Your task to perform on an android device: Open Google Chrome and click the shortcut for Amazon.com Image 0: 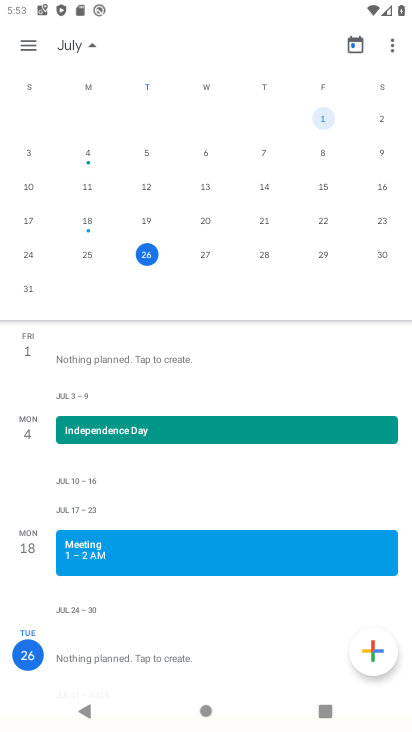
Step 0: press home button
Your task to perform on an android device: Open Google Chrome and click the shortcut for Amazon.com Image 1: 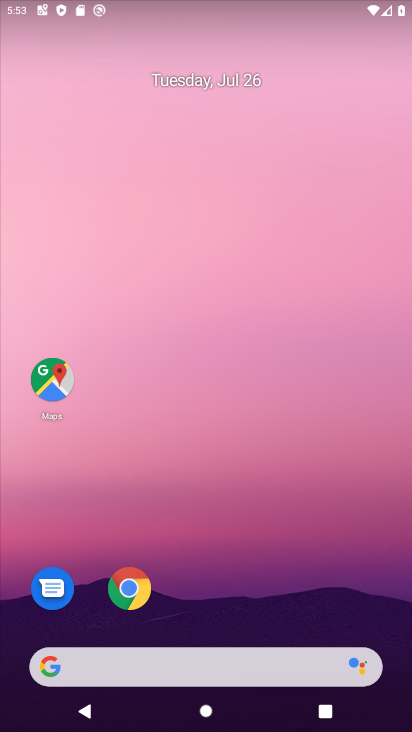
Step 1: drag from (245, 611) to (223, 50)
Your task to perform on an android device: Open Google Chrome and click the shortcut for Amazon.com Image 2: 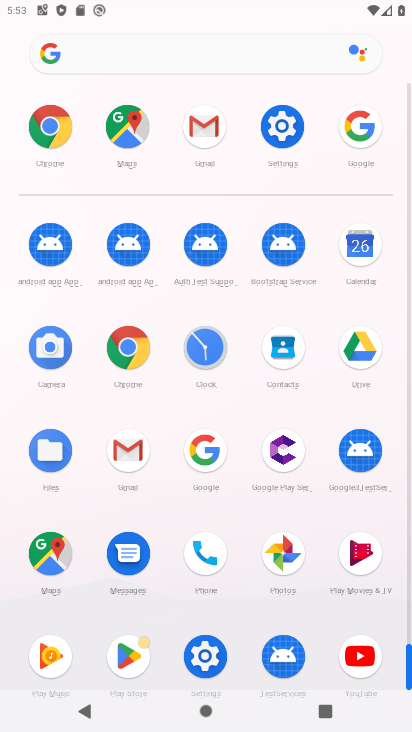
Step 2: click (133, 343)
Your task to perform on an android device: Open Google Chrome and click the shortcut for Amazon.com Image 3: 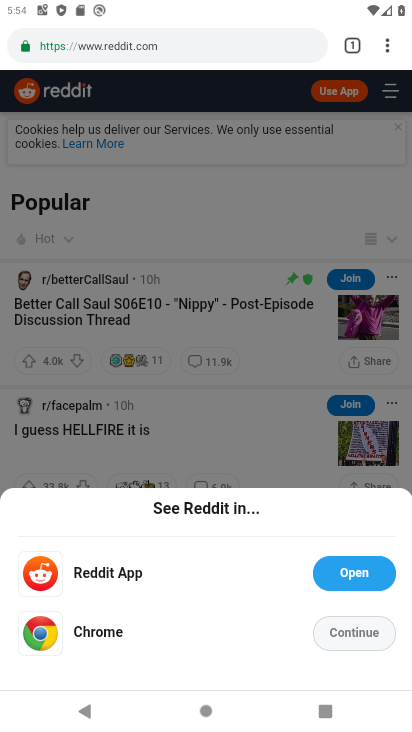
Step 3: drag from (209, 45) to (231, 230)
Your task to perform on an android device: Open Google Chrome and click the shortcut for Amazon.com Image 4: 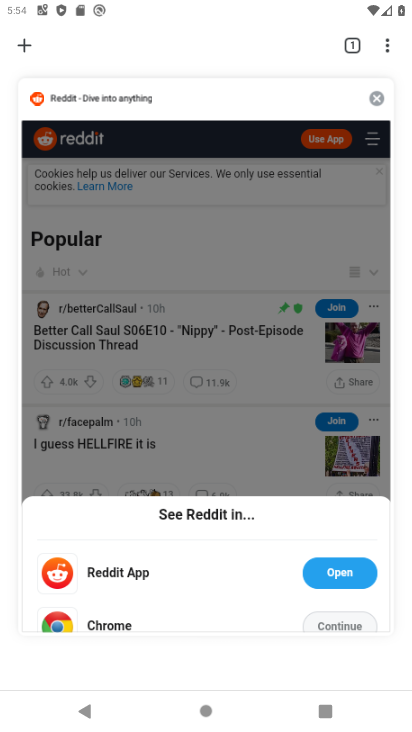
Step 4: click (21, 43)
Your task to perform on an android device: Open Google Chrome and click the shortcut for Amazon.com Image 5: 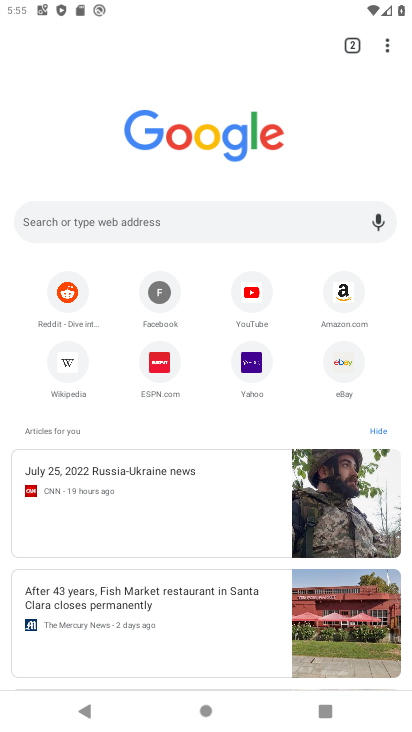
Step 5: click (335, 300)
Your task to perform on an android device: Open Google Chrome and click the shortcut for Amazon.com Image 6: 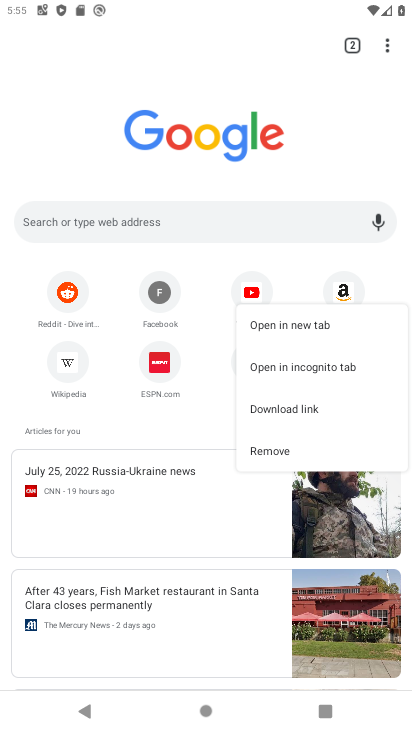
Step 6: click (341, 284)
Your task to perform on an android device: Open Google Chrome and click the shortcut for Amazon.com Image 7: 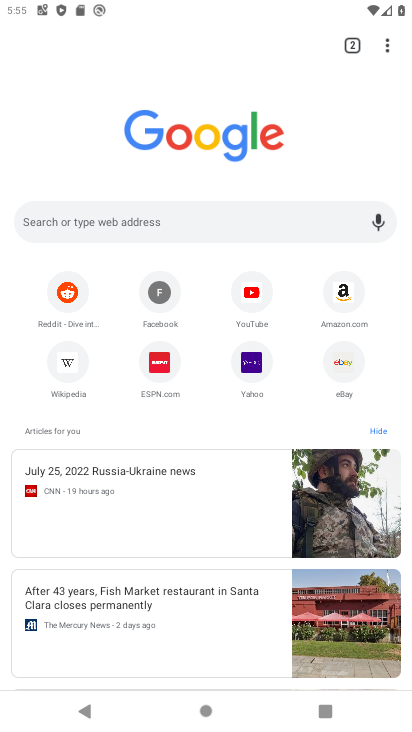
Step 7: click (341, 281)
Your task to perform on an android device: Open Google Chrome and click the shortcut for Amazon.com Image 8: 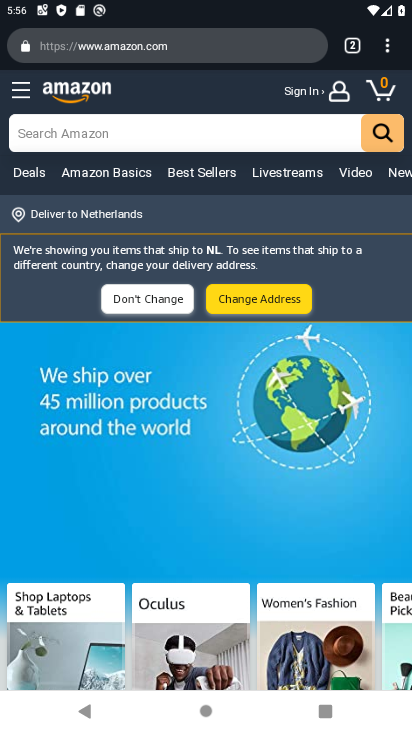
Step 8: task complete